Your task to perform on an android device: Go to Google maps Image 0: 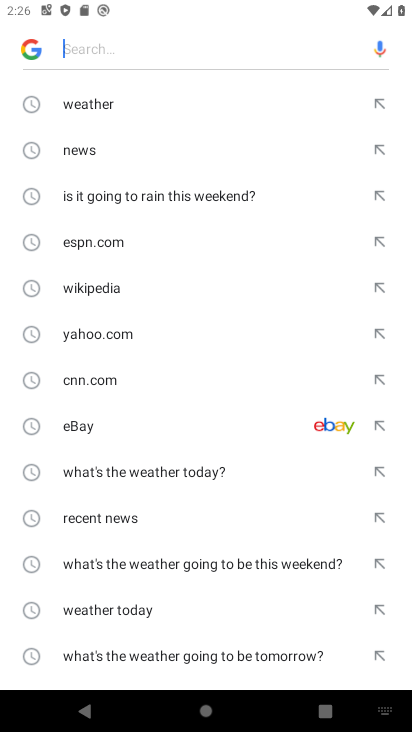
Step 0: press home button
Your task to perform on an android device: Go to Google maps Image 1: 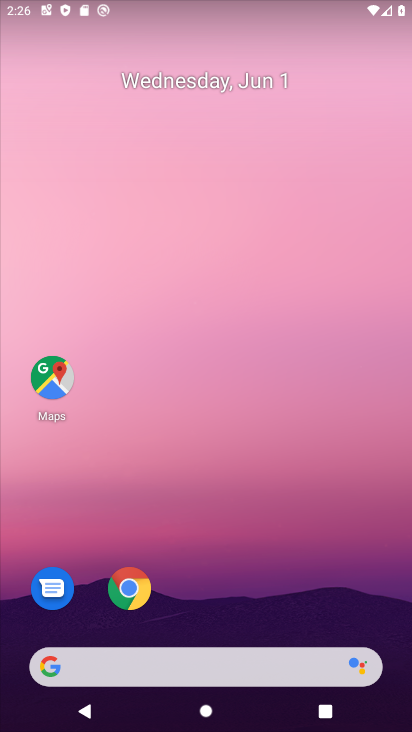
Step 1: click (50, 370)
Your task to perform on an android device: Go to Google maps Image 2: 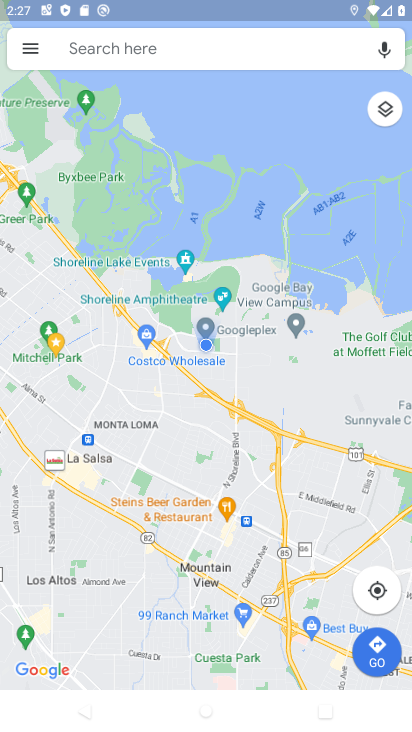
Step 2: task complete